Your task to perform on an android device: Open privacy settings Image 0: 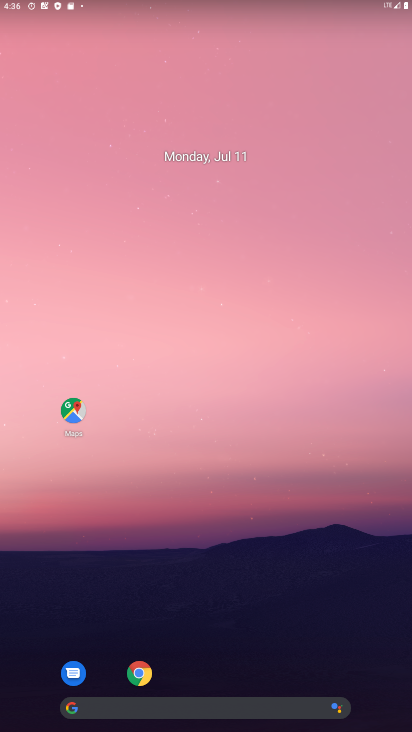
Step 0: drag from (217, 706) to (411, 248)
Your task to perform on an android device: Open privacy settings Image 1: 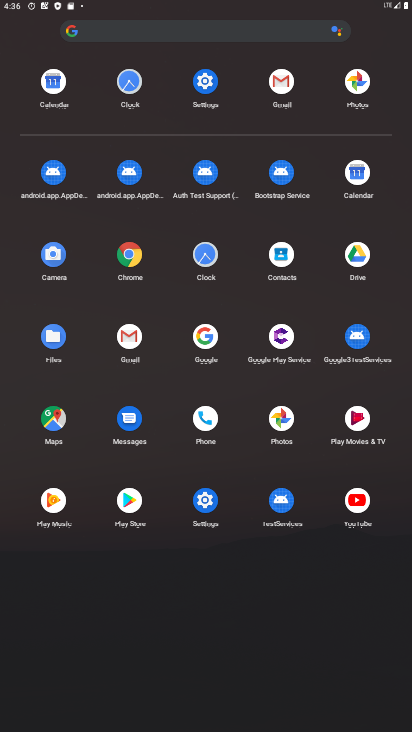
Step 1: click (203, 81)
Your task to perform on an android device: Open privacy settings Image 2: 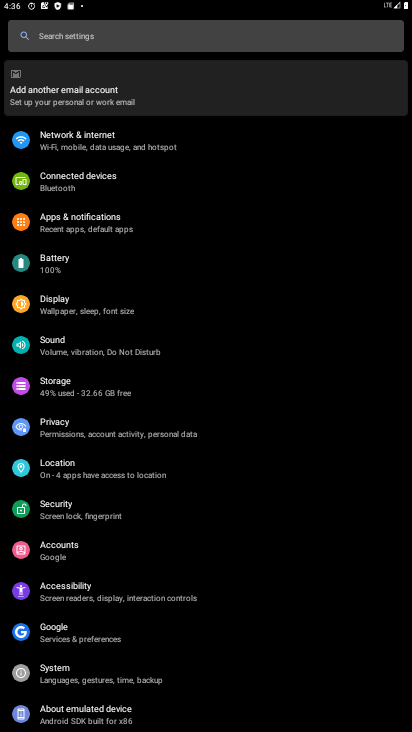
Step 2: click (95, 431)
Your task to perform on an android device: Open privacy settings Image 3: 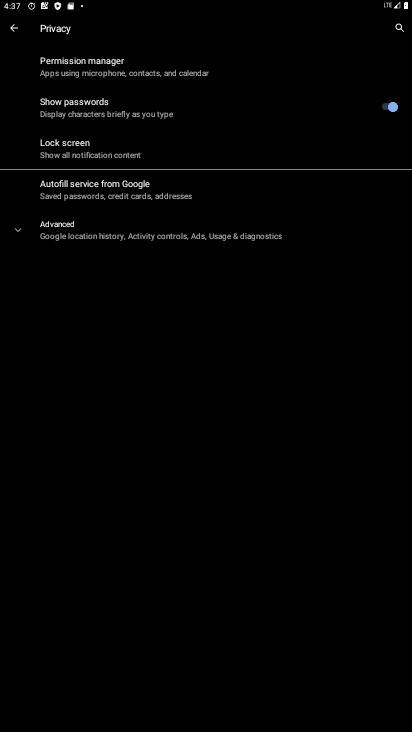
Step 3: task complete